Your task to perform on an android device: add a label to a message in the gmail app Image 0: 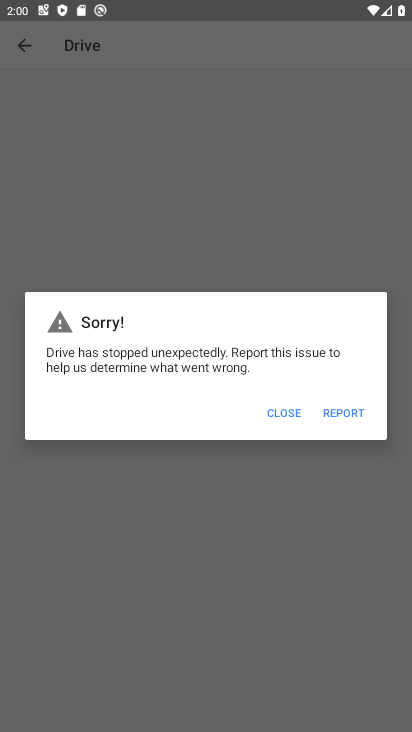
Step 0: click (277, 409)
Your task to perform on an android device: add a label to a message in the gmail app Image 1: 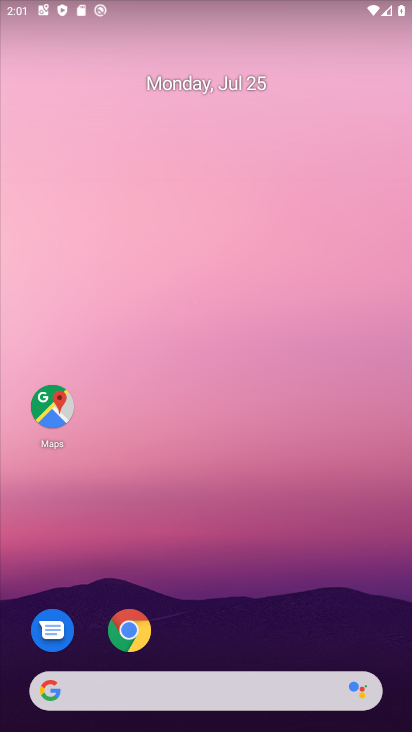
Step 1: drag from (221, 617) to (208, 177)
Your task to perform on an android device: add a label to a message in the gmail app Image 2: 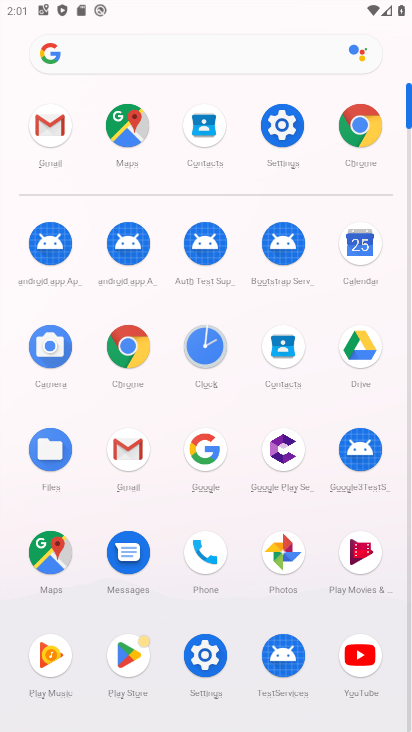
Step 2: click (65, 132)
Your task to perform on an android device: add a label to a message in the gmail app Image 3: 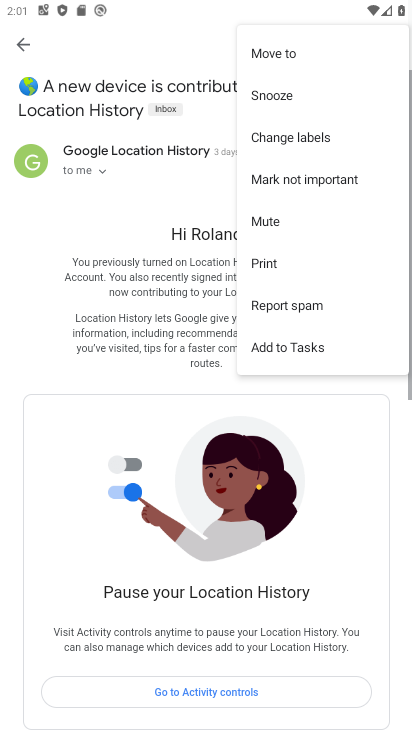
Step 3: task complete